Your task to perform on an android device: Go to Yahoo.com Image 0: 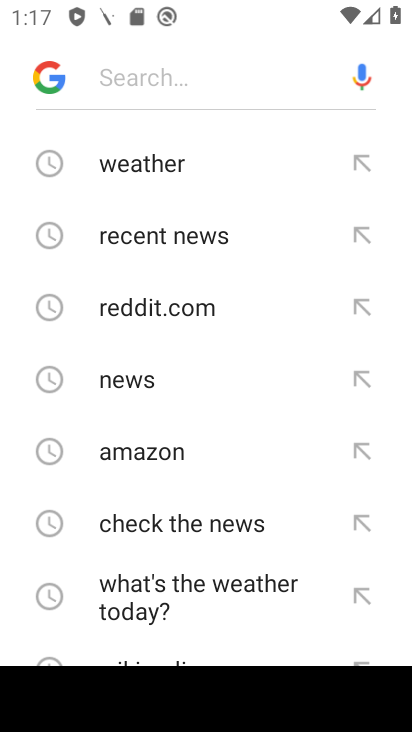
Step 0: press home button
Your task to perform on an android device: Go to Yahoo.com Image 1: 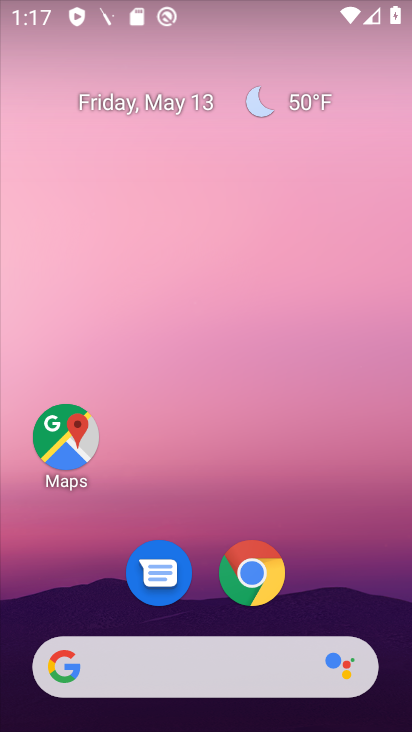
Step 1: click (252, 583)
Your task to perform on an android device: Go to Yahoo.com Image 2: 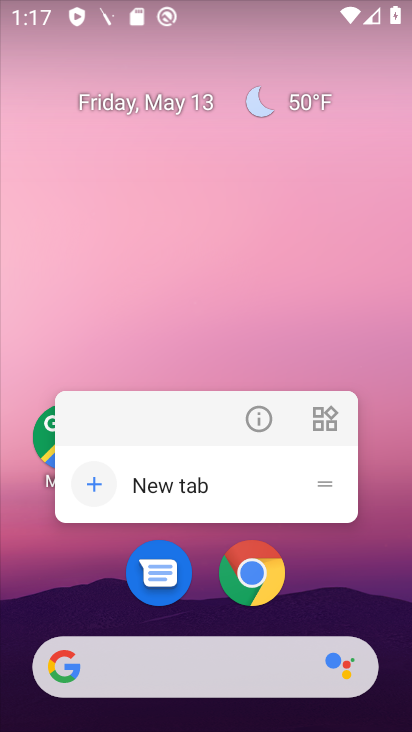
Step 2: click (252, 584)
Your task to perform on an android device: Go to Yahoo.com Image 3: 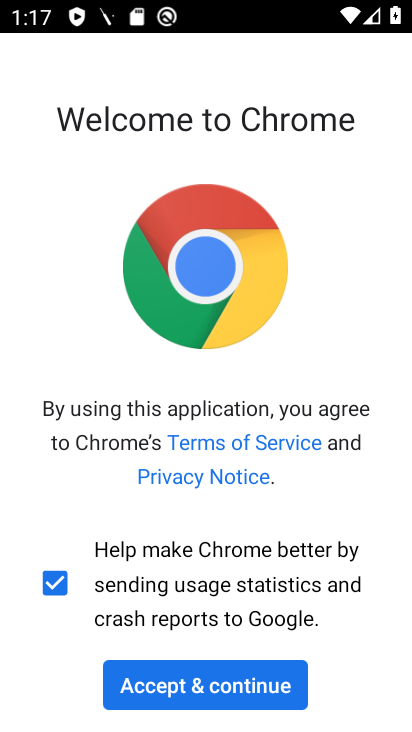
Step 3: click (190, 691)
Your task to perform on an android device: Go to Yahoo.com Image 4: 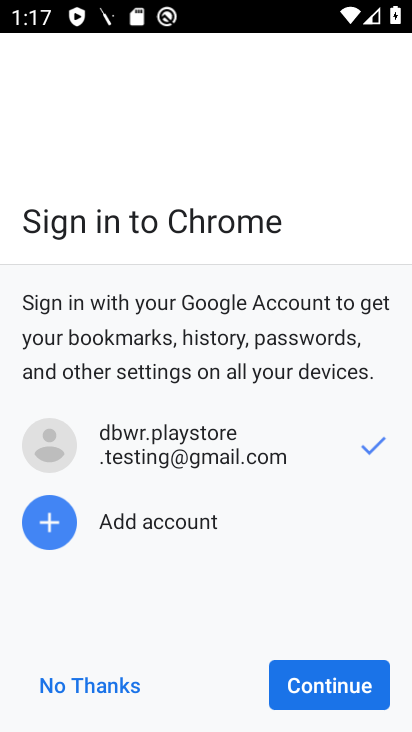
Step 4: click (328, 692)
Your task to perform on an android device: Go to Yahoo.com Image 5: 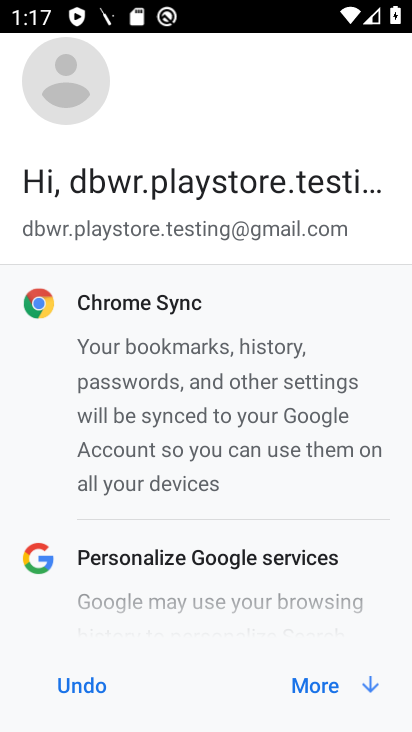
Step 5: click (328, 692)
Your task to perform on an android device: Go to Yahoo.com Image 6: 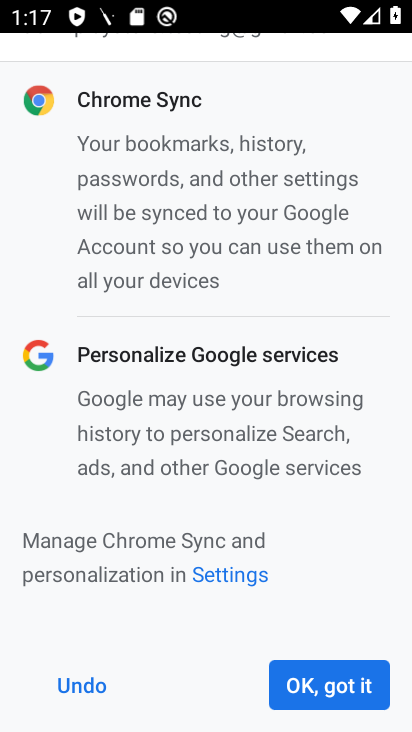
Step 6: click (328, 692)
Your task to perform on an android device: Go to Yahoo.com Image 7: 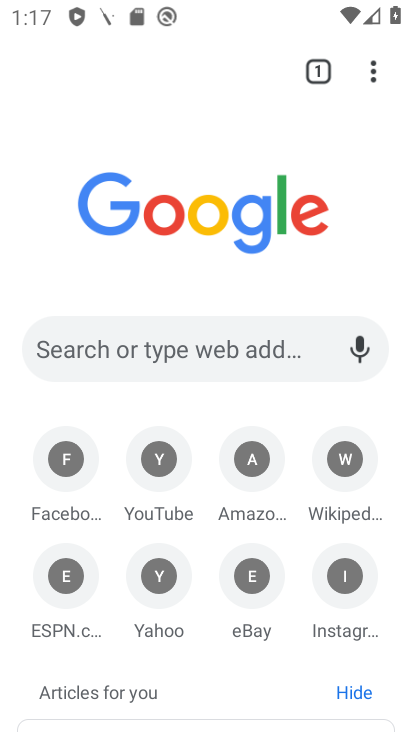
Step 7: click (195, 346)
Your task to perform on an android device: Go to Yahoo.com Image 8: 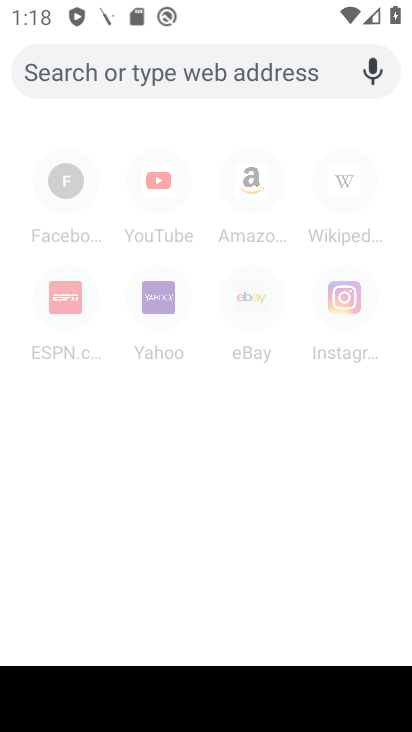
Step 8: type "www.yahoo.com"
Your task to perform on an android device: Go to Yahoo.com Image 9: 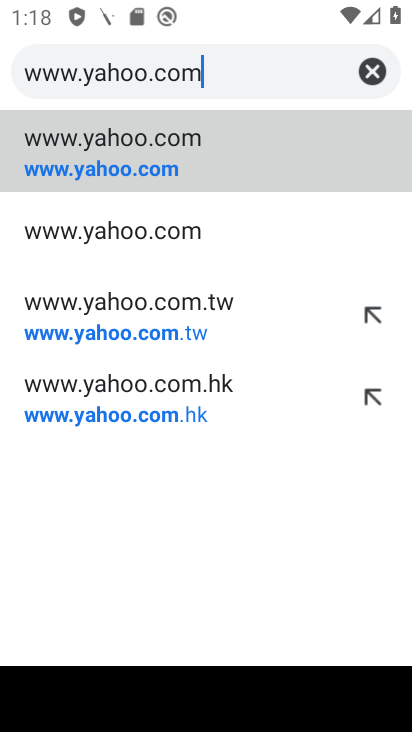
Step 9: click (128, 178)
Your task to perform on an android device: Go to Yahoo.com Image 10: 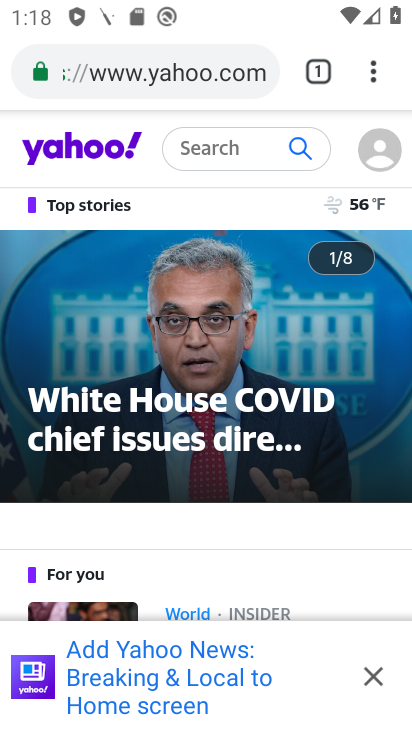
Step 10: task complete